Your task to perform on an android device: open app "Reddit" (install if not already installed) and enter user name: "issues@yahoo.com" and password: "belt" Image 0: 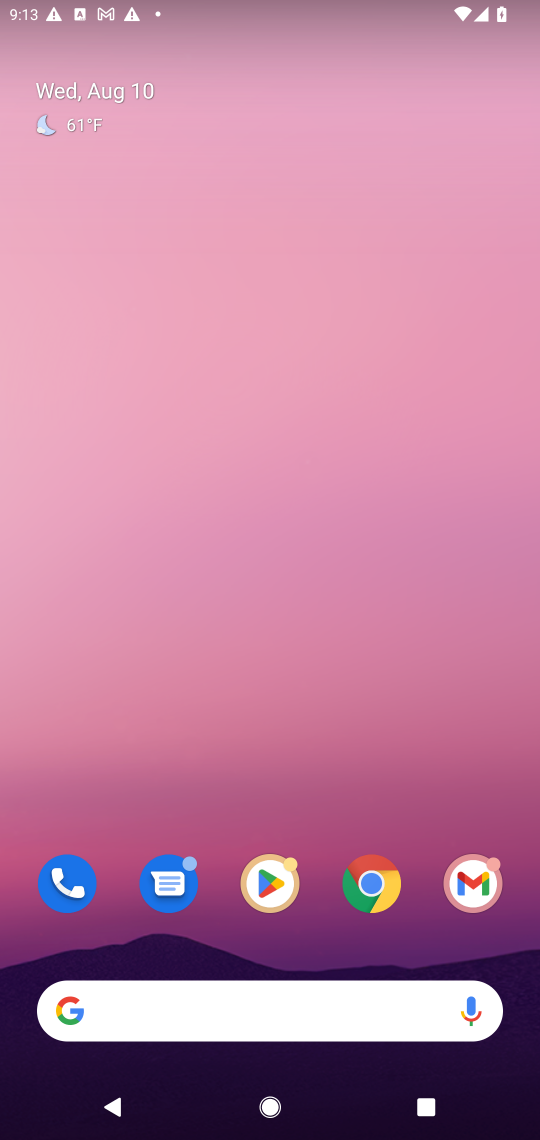
Step 0: click (286, 903)
Your task to perform on an android device: open app "Reddit" (install if not already installed) and enter user name: "issues@yahoo.com" and password: "belt" Image 1: 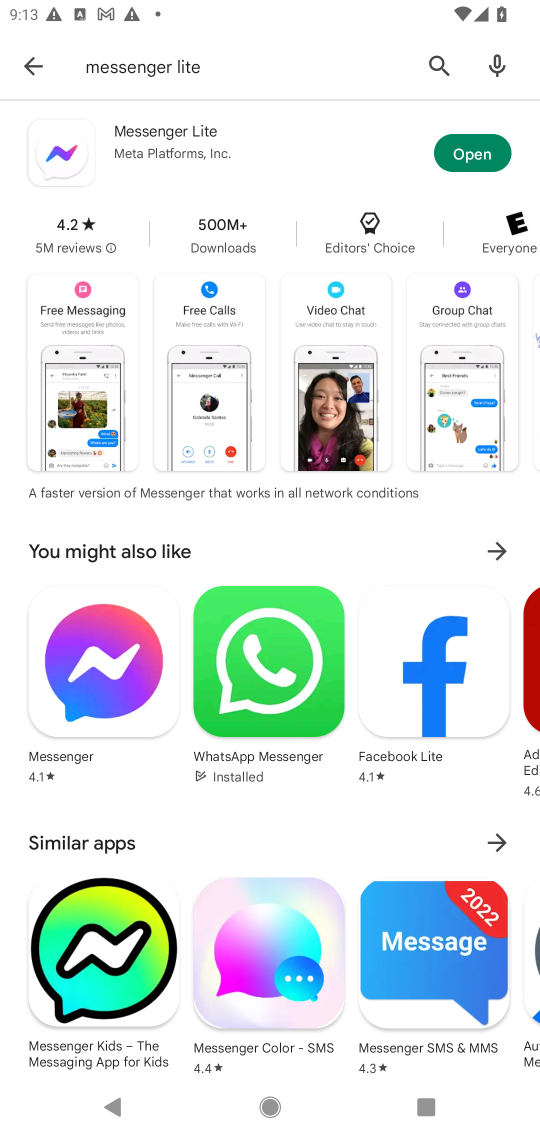
Step 1: click (440, 71)
Your task to perform on an android device: open app "Reddit" (install if not already installed) and enter user name: "issues@yahoo.com" and password: "belt" Image 2: 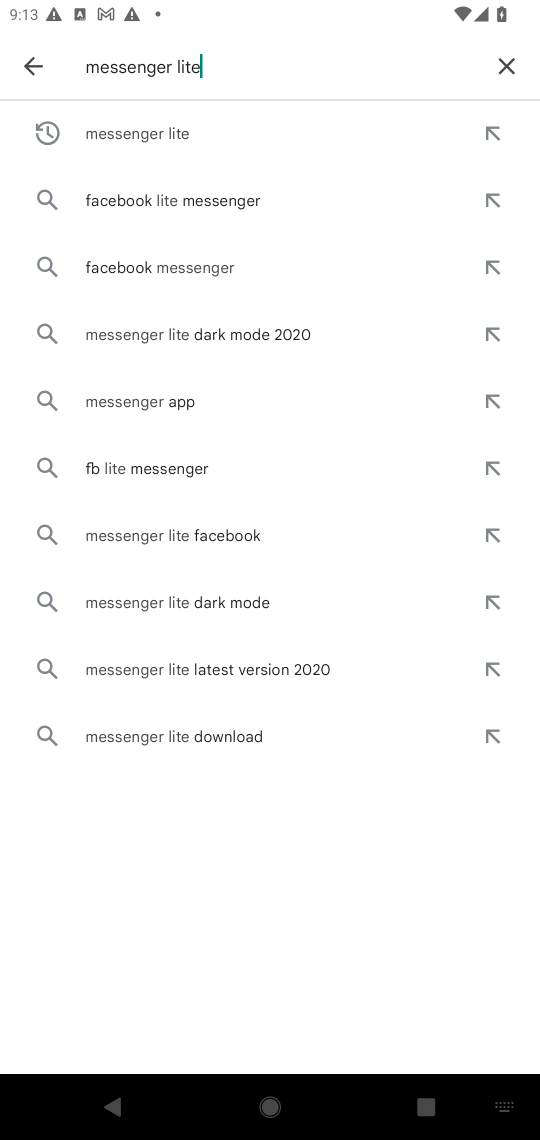
Step 2: click (500, 66)
Your task to perform on an android device: open app "Reddit" (install if not already installed) and enter user name: "issues@yahoo.com" and password: "belt" Image 3: 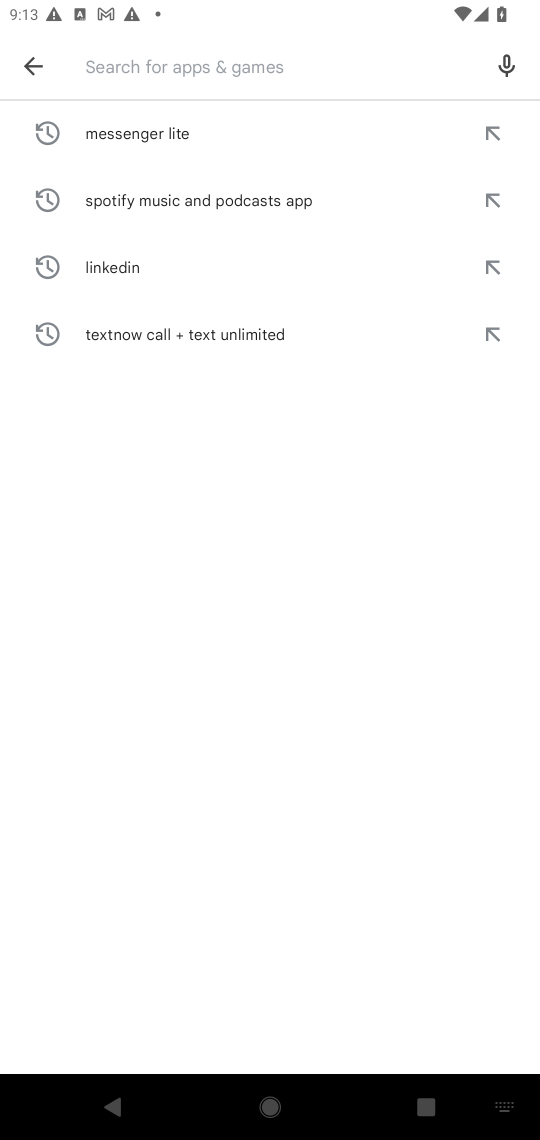
Step 3: type "Reddit"
Your task to perform on an android device: open app "Reddit" (install if not already installed) and enter user name: "issues@yahoo.com" and password: "belt" Image 4: 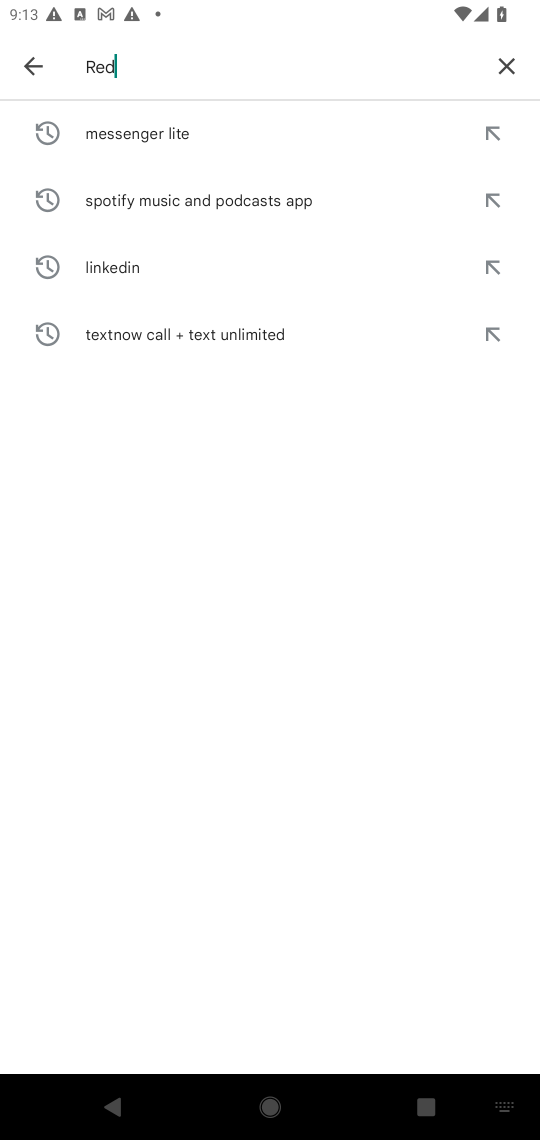
Step 4: type ""
Your task to perform on an android device: open app "Reddit" (install if not already installed) and enter user name: "issues@yahoo.com" and password: "belt" Image 5: 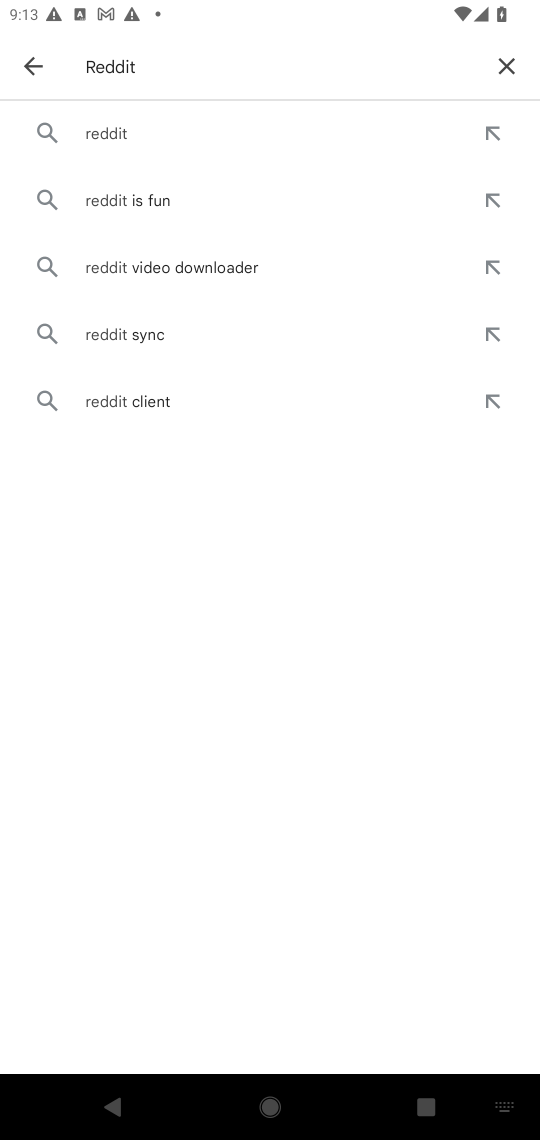
Step 5: click (84, 127)
Your task to perform on an android device: open app "Reddit" (install if not already installed) and enter user name: "issues@yahoo.com" and password: "belt" Image 6: 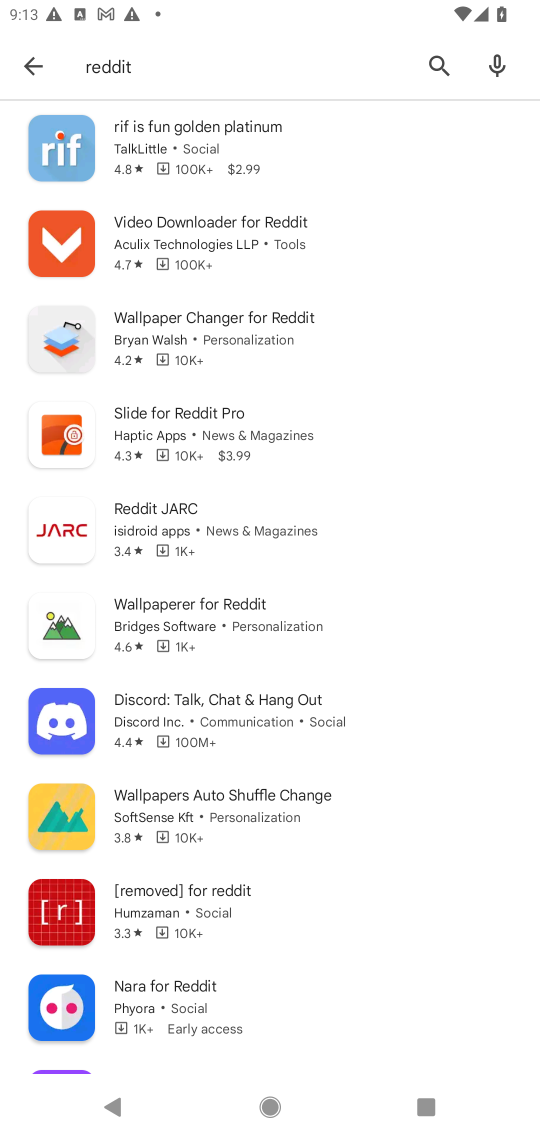
Step 6: task complete